Your task to perform on an android device: Empty the shopping cart on costco. Image 0: 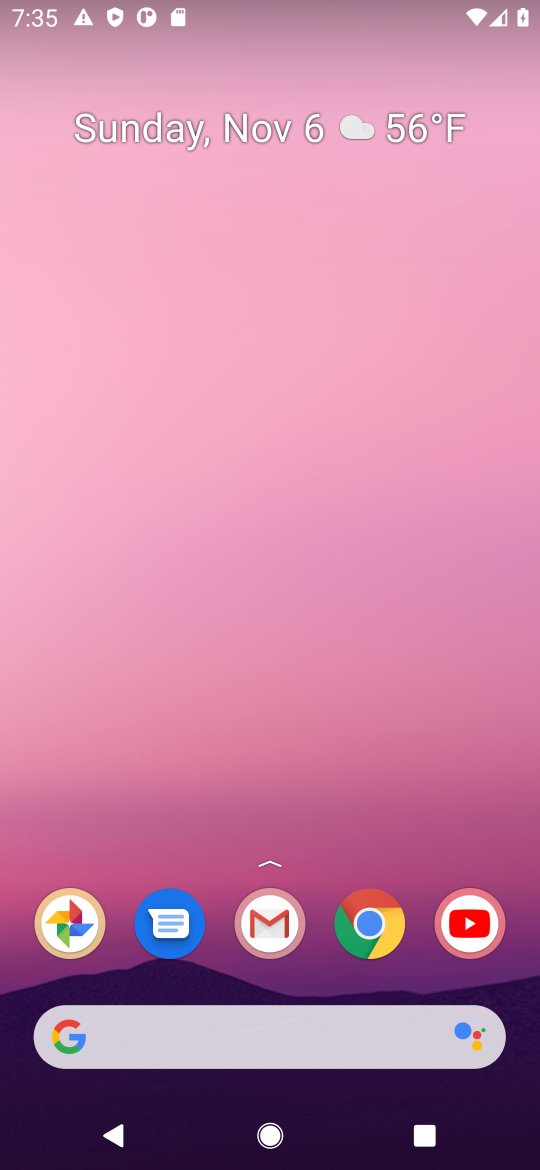
Step 0: click (360, 940)
Your task to perform on an android device: Empty the shopping cart on costco. Image 1: 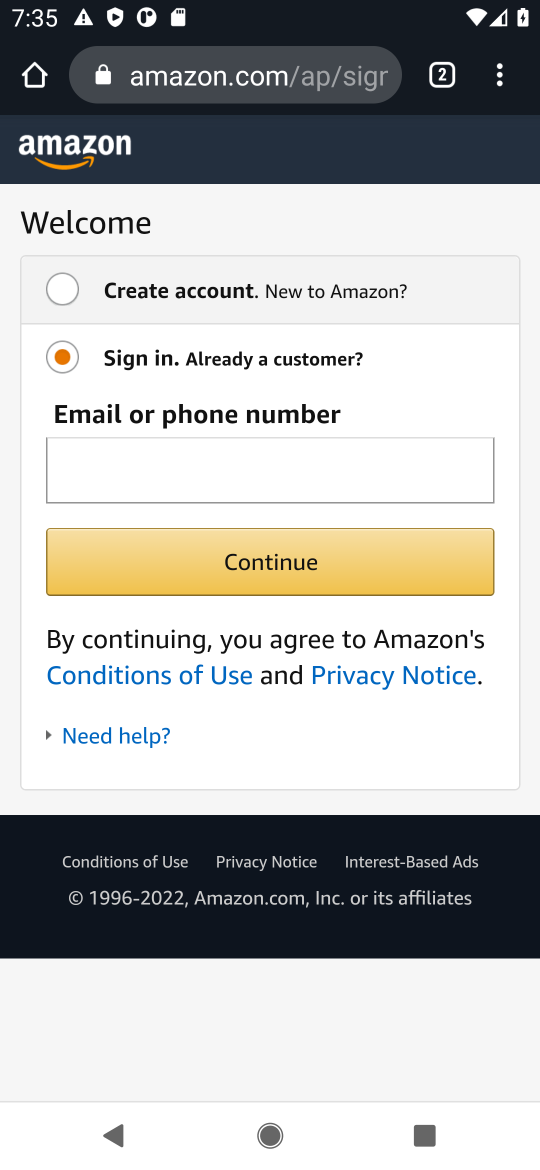
Step 1: click (225, 86)
Your task to perform on an android device: Empty the shopping cart on costco. Image 2: 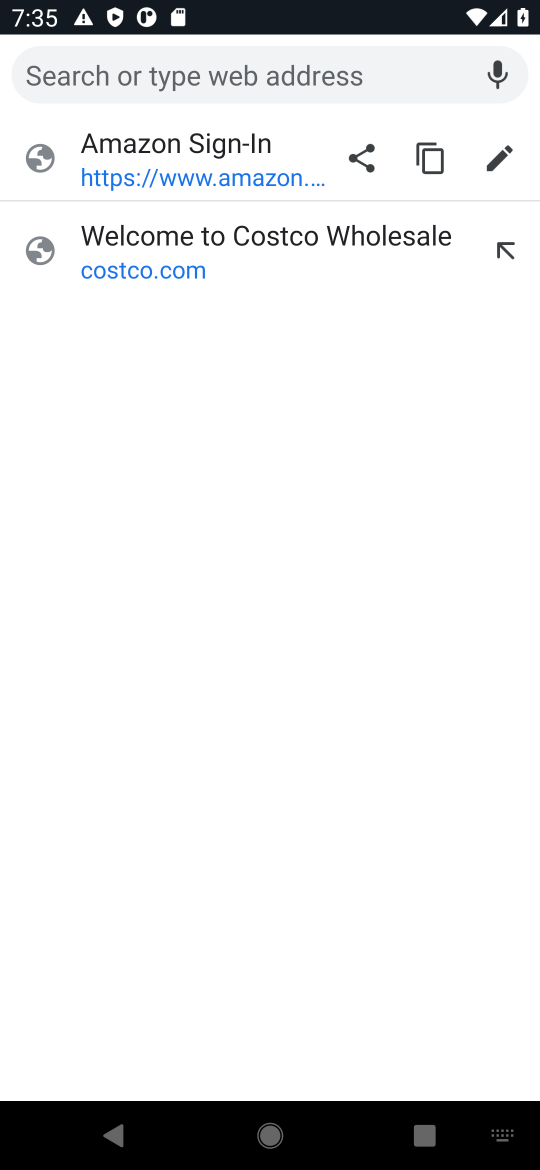
Step 2: click (132, 280)
Your task to perform on an android device: Empty the shopping cart on costco. Image 3: 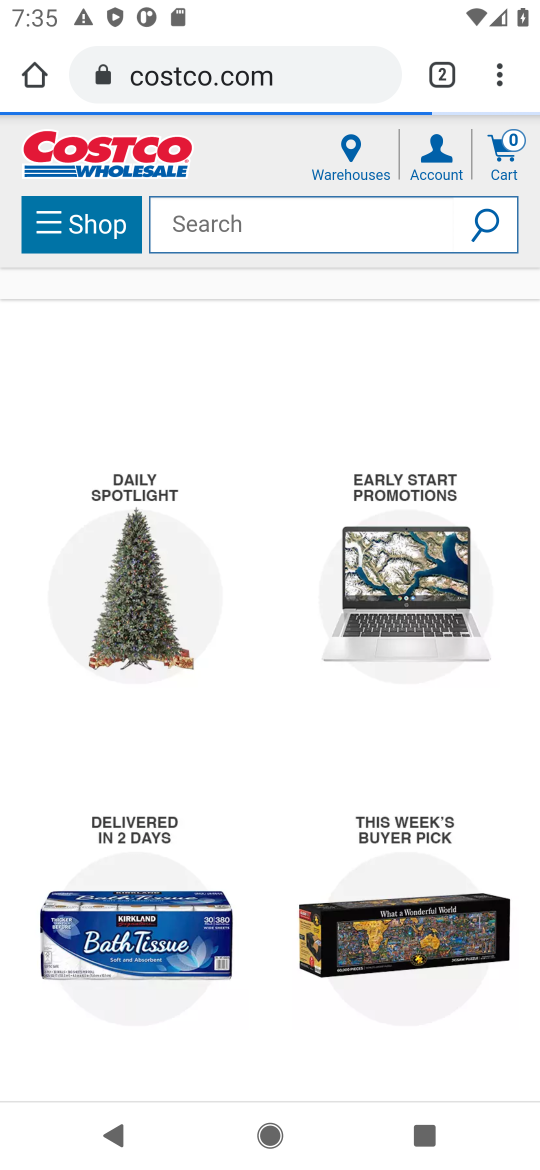
Step 3: click (502, 159)
Your task to perform on an android device: Empty the shopping cart on costco. Image 4: 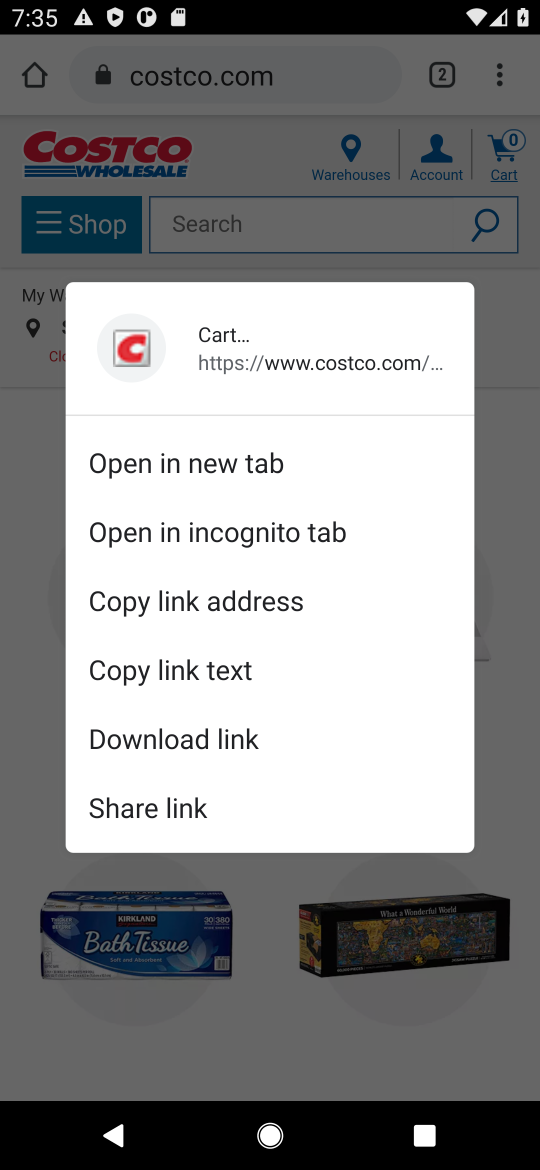
Step 4: click (502, 159)
Your task to perform on an android device: Empty the shopping cart on costco. Image 5: 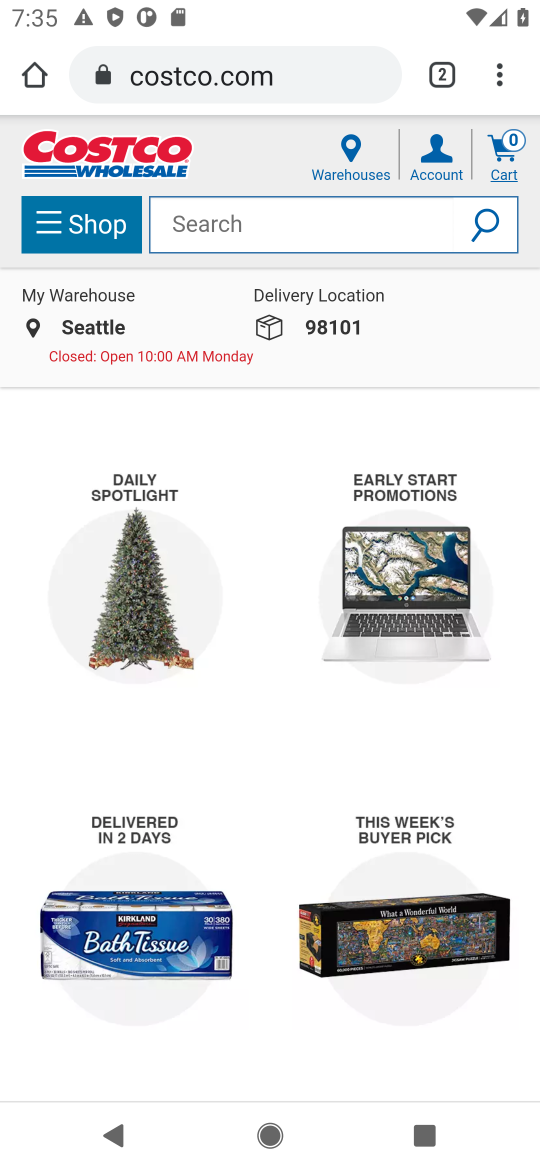
Step 5: click (504, 153)
Your task to perform on an android device: Empty the shopping cart on costco. Image 6: 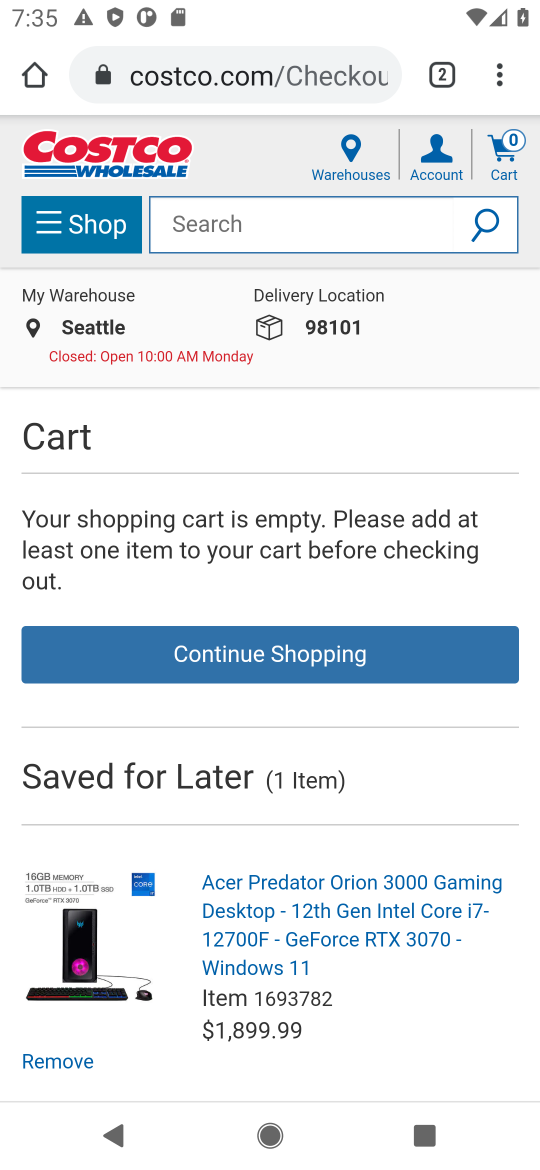
Step 6: task complete